Your task to perform on an android device: Open Youtube and go to the subscriptions tab Image 0: 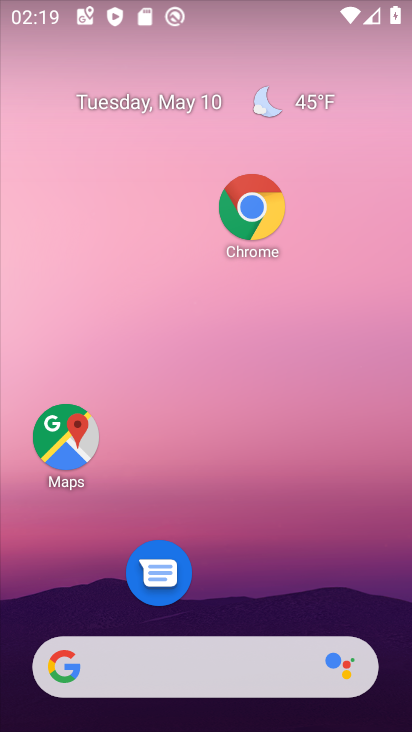
Step 0: drag from (266, 598) to (335, 18)
Your task to perform on an android device: Open Youtube and go to the subscriptions tab Image 1: 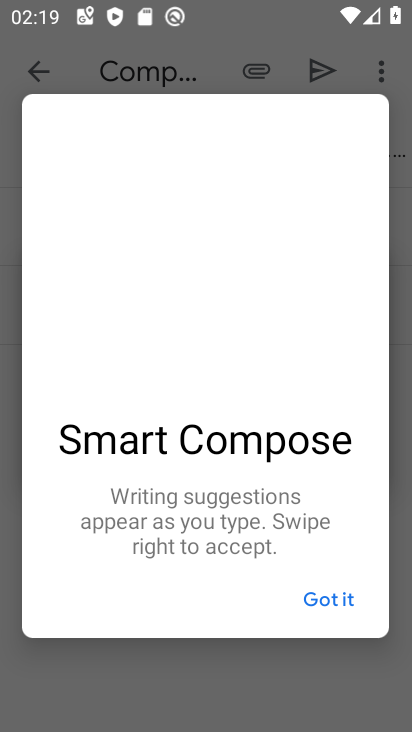
Step 1: drag from (287, 606) to (355, 22)
Your task to perform on an android device: Open Youtube and go to the subscriptions tab Image 2: 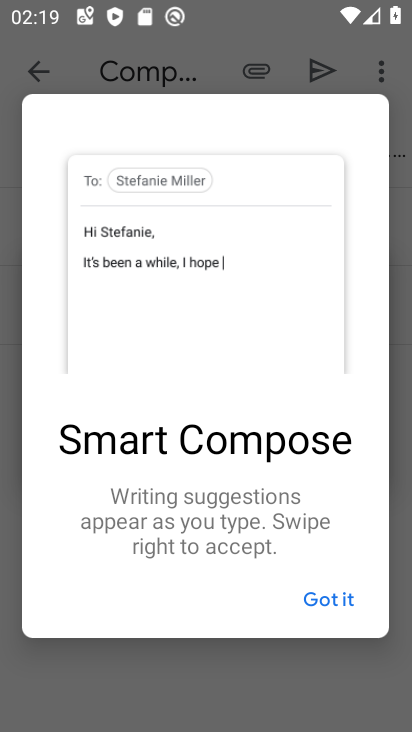
Step 2: click (330, 595)
Your task to perform on an android device: Open Youtube and go to the subscriptions tab Image 3: 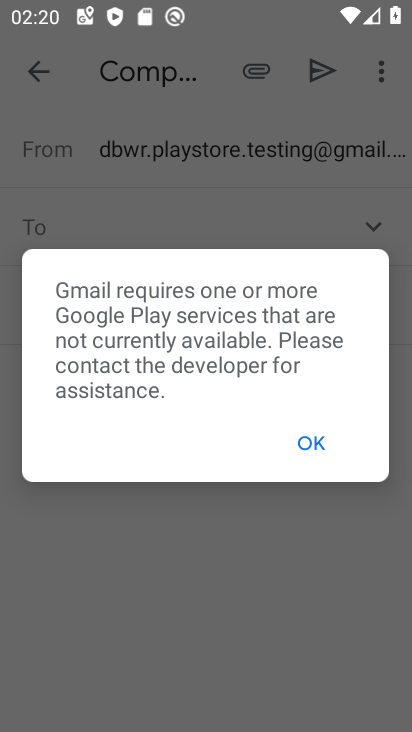
Step 3: press home button
Your task to perform on an android device: Open Youtube and go to the subscriptions tab Image 4: 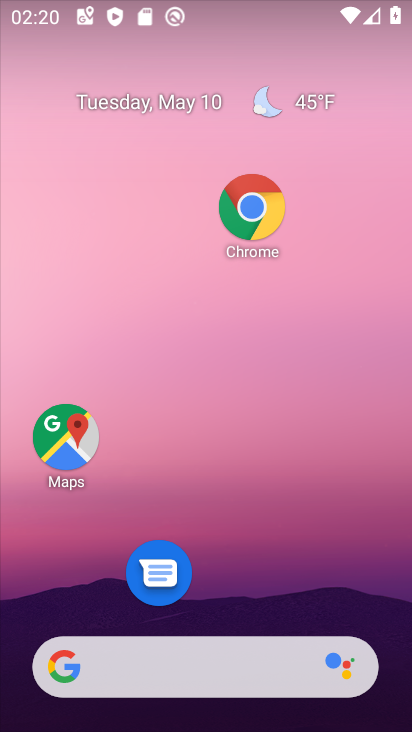
Step 4: drag from (257, 626) to (310, 51)
Your task to perform on an android device: Open Youtube and go to the subscriptions tab Image 5: 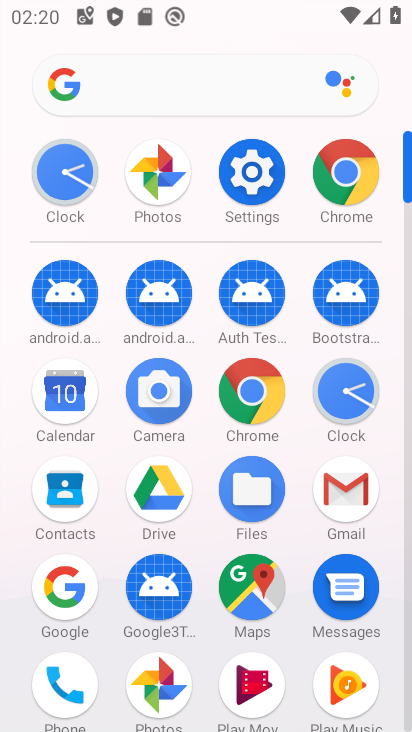
Step 5: drag from (208, 575) to (274, 39)
Your task to perform on an android device: Open Youtube and go to the subscriptions tab Image 6: 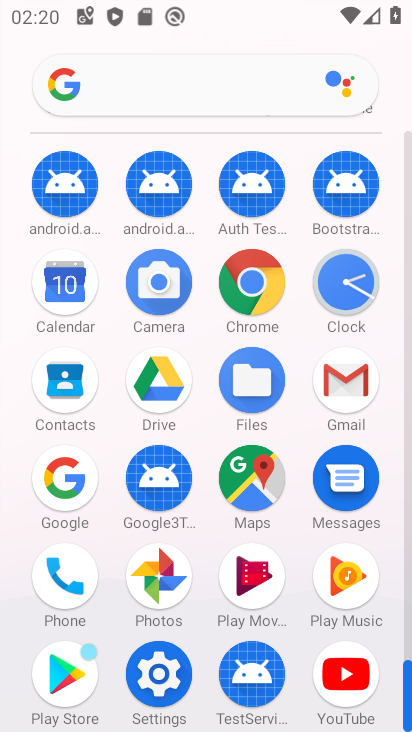
Step 6: click (358, 658)
Your task to perform on an android device: Open Youtube and go to the subscriptions tab Image 7: 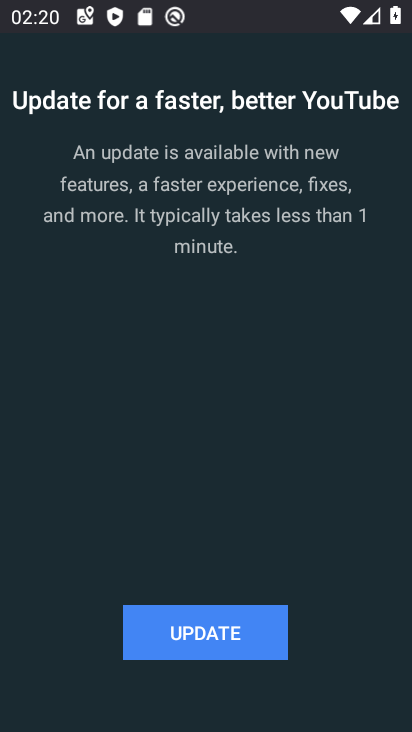
Step 7: click (202, 641)
Your task to perform on an android device: Open Youtube and go to the subscriptions tab Image 8: 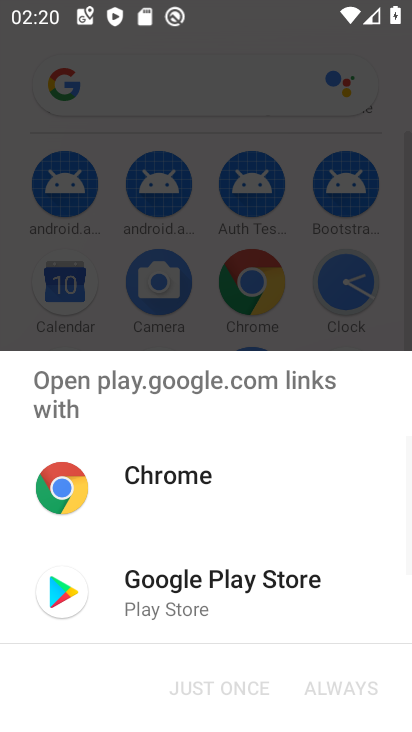
Step 8: drag from (196, 588) to (319, 587)
Your task to perform on an android device: Open Youtube and go to the subscriptions tab Image 9: 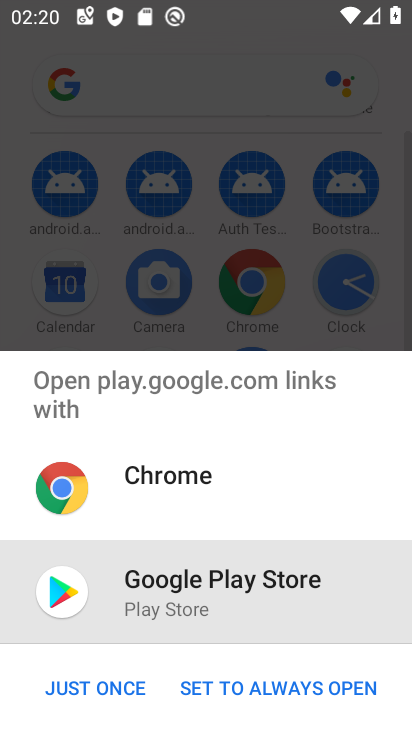
Step 9: click (111, 692)
Your task to perform on an android device: Open Youtube and go to the subscriptions tab Image 10: 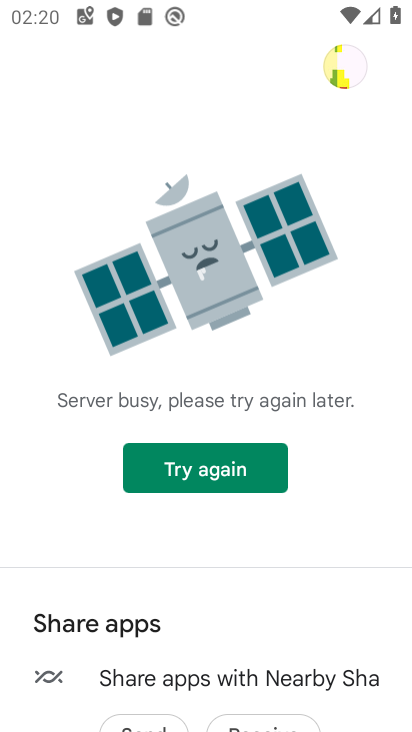
Step 10: click (229, 466)
Your task to perform on an android device: Open Youtube and go to the subscriptions tab Image 11: 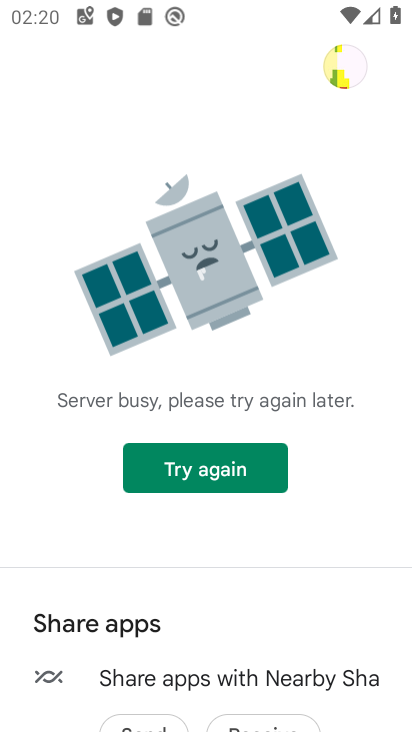
Step 11: click (236, 464)
Your task to perform on an android device: Open Youtube and go to the subscriptions tab Image 12: 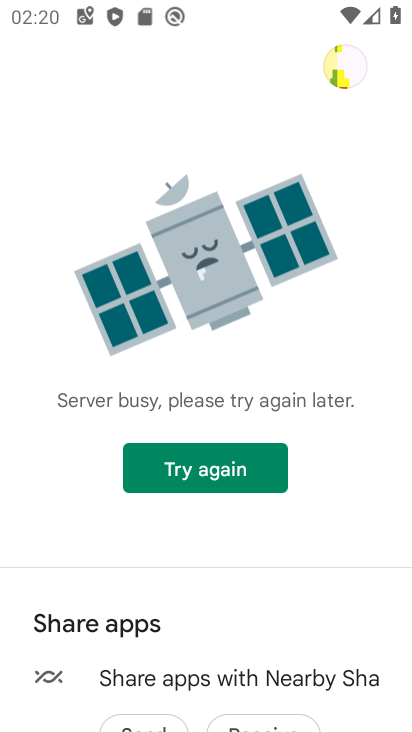
Step 12: task complete